Your task to perform on an android device: Show me recent news Image 0: 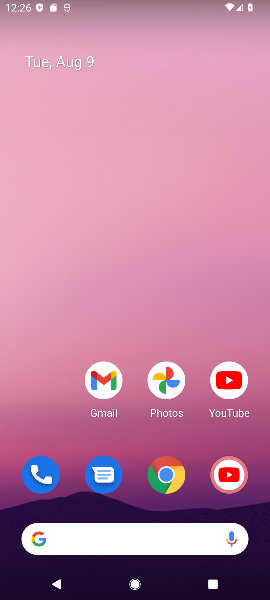
Step 0: drag from (90, 442) to (67, 74)
Your task to perform on an android device: Show me recent news Image 1: 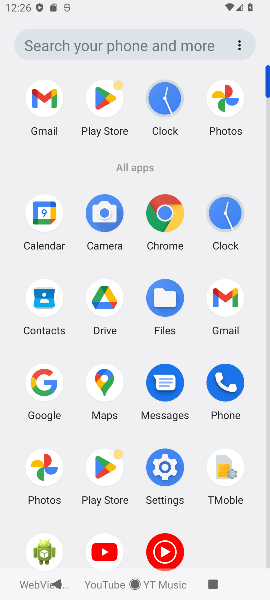
Step 1: click (46, 385)
Your task to perform on an android device: Show me recent news Image 2: 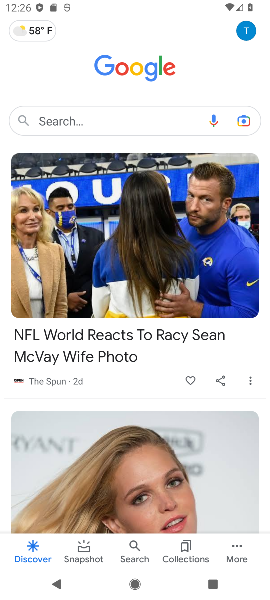
Step 2: click (88, 117)
Your task to perform on an android device: Show me recent news Image 3: 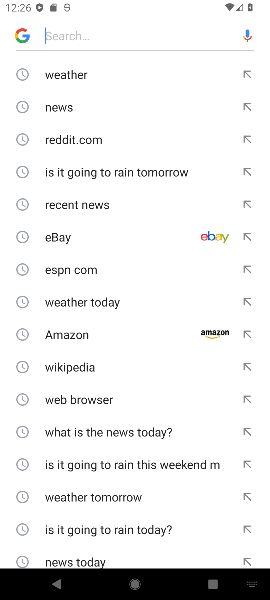
Step 3: type "recent news"
Your task to perform on an android device: Show me recent news Image 4: 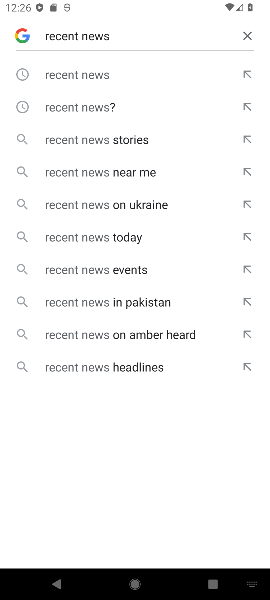
Step 4: click (151, 69)
Your task to perform on an android device: Show me recent news Image 5: 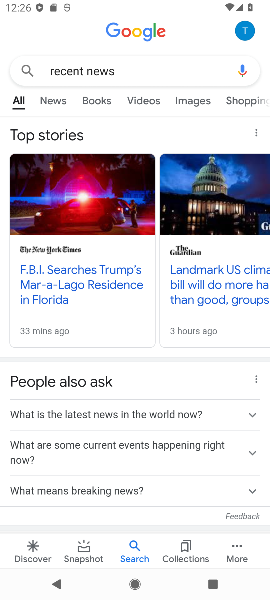
Step 5: task complete